Your task to perform on an android device: Open calendar and show me the third week of next month Image 0: 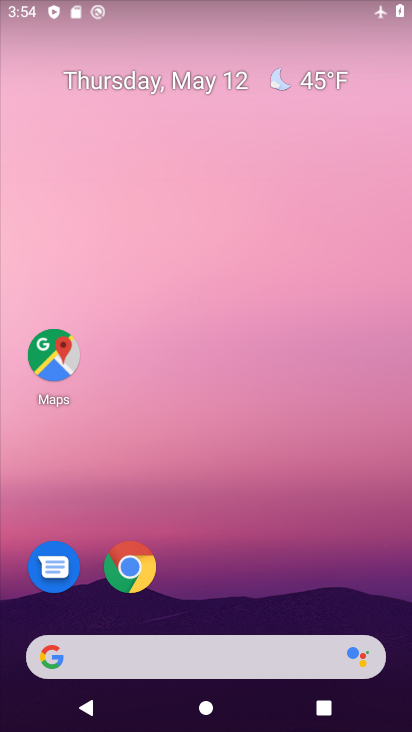
Step 0: drag from (216, 587) to (216, 180)
Your task to perform on an android device: Open calendar and show me the third week of next month Image 1: 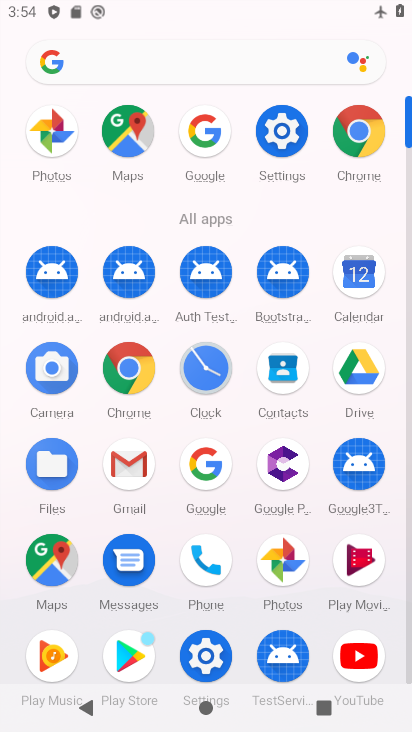
Step 1: click (336, 279)
Your task to perform on an android device: Open calendar and show me the third week of next month Image 2: 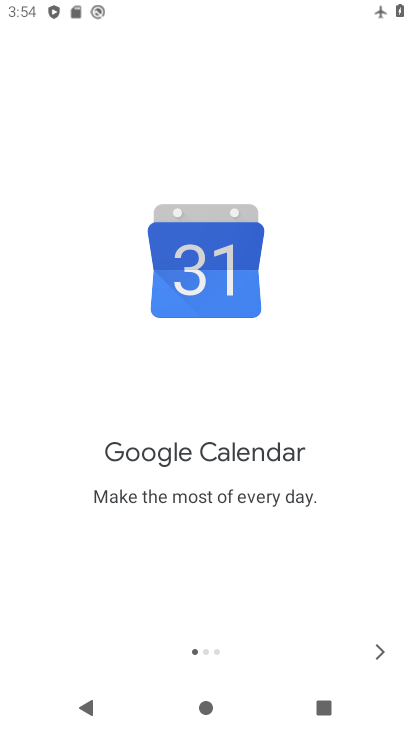
Step 2: click (376, 640)
Your task to perform on an android device: Open calendar and show me the third week of next month Image 3: 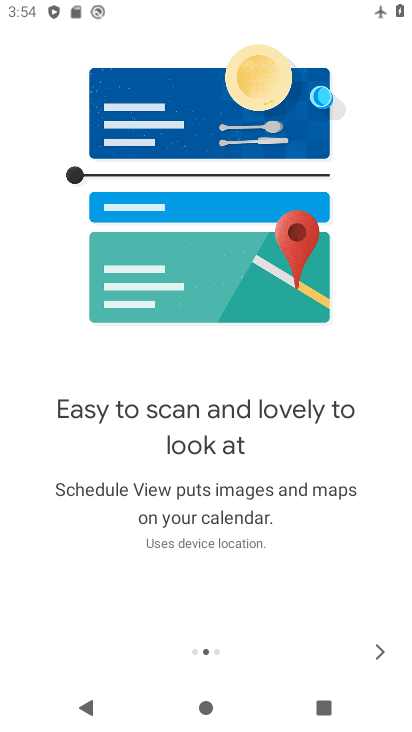
Step 3: click (376, 639)
Your task to perform on an android device: Open calendar and show me the third week of next month Image 4: 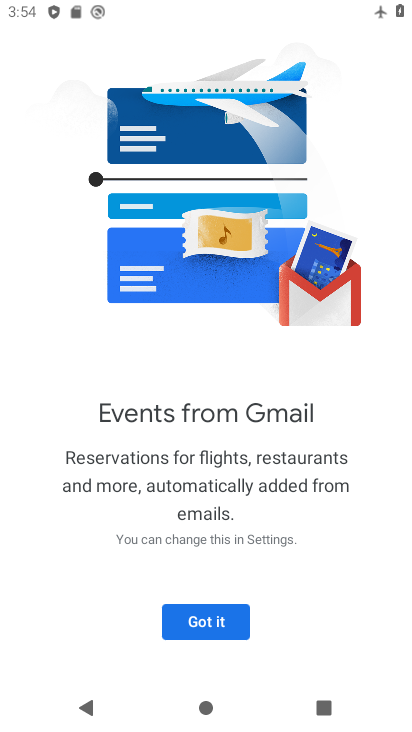
Step 4: click (376, 639)
Your task to perform on an android device: Open calendar and show me the third week of next month Image 5: 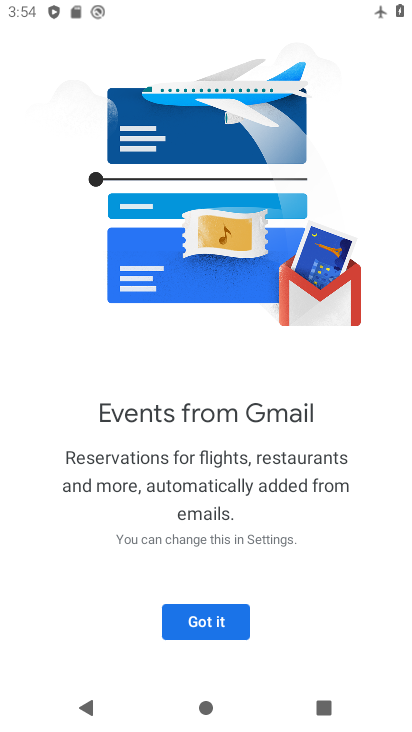
Step 5: click (238, 622)
Your task to perform on an android device: Open calendar and show me the third week of next month Image 6: 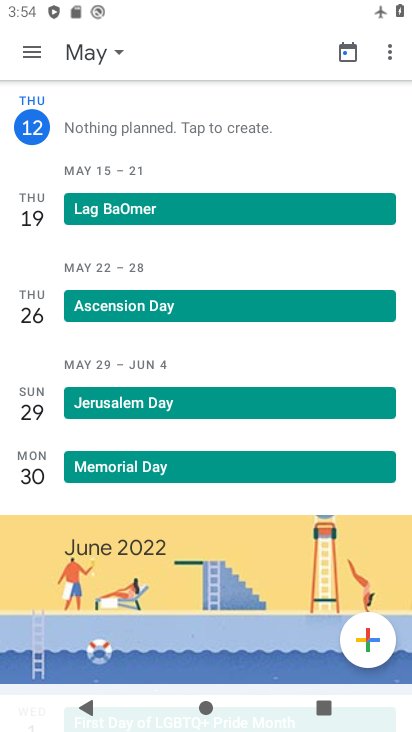
Step 6: click (111, 42)
Your task to perform on an android device: Open calendar and show me the third week of next month Image 7: 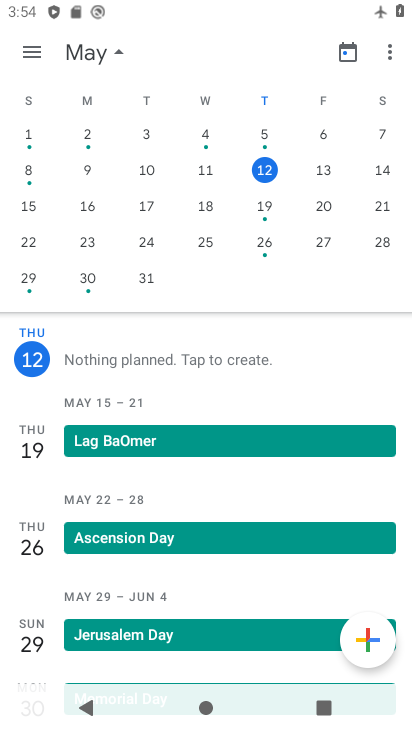
Step 7: drag from (363, 167) to (4, 206)
Your task to perform on an android device: Open calendar and show me the third week of next month Image 8: 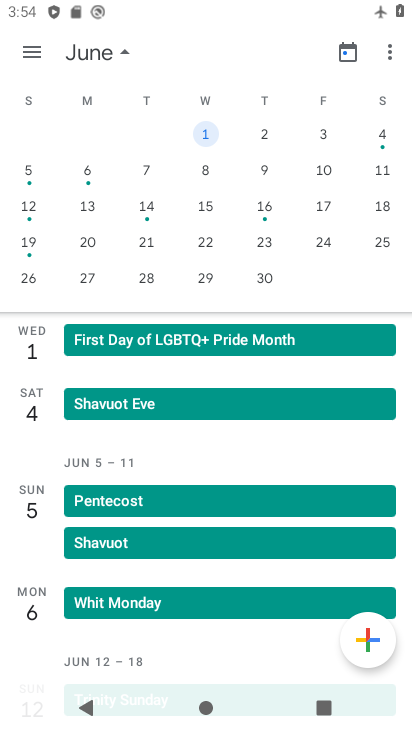
Step 8: click (36, 208)
Your task to perform on an android device: Open calendar and show me the third week of next month Image 9: 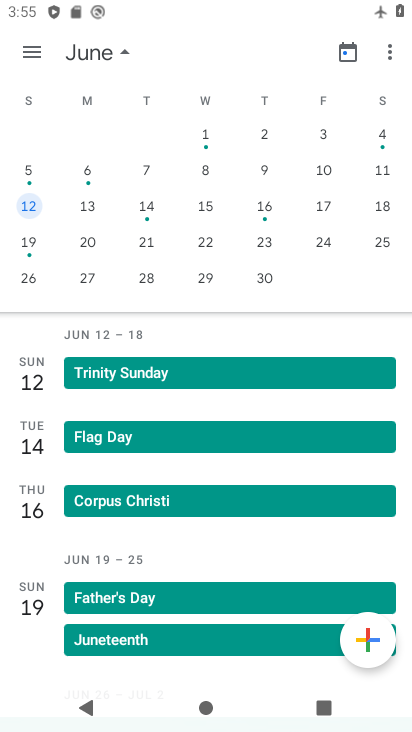
Step 9: task complete